Your task to perform on an android device: Go to Google maps Image 0: 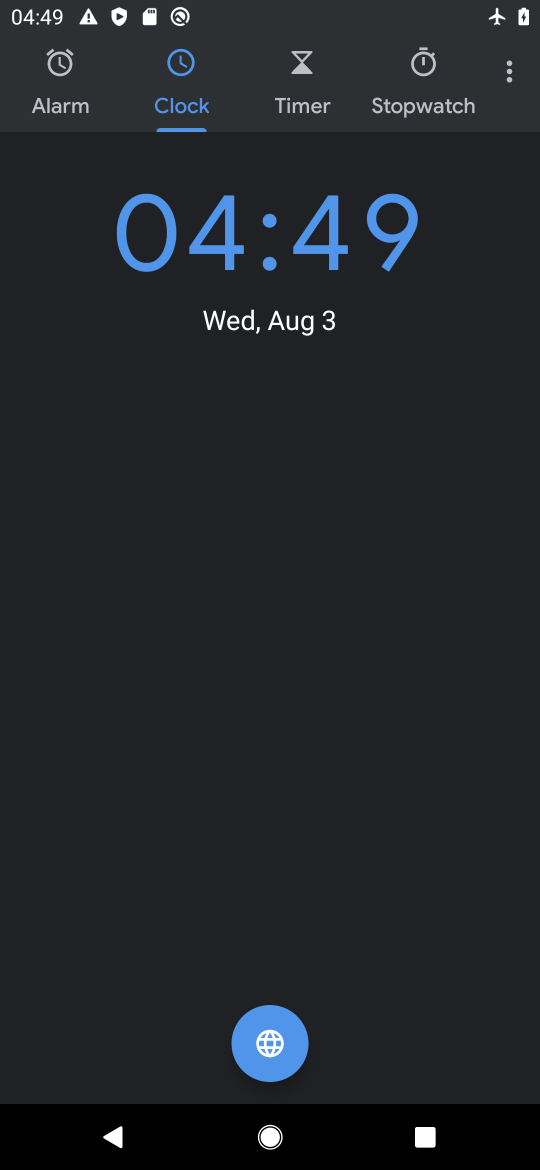
Step 0: press home button
Your task to perform on an android device: Go to Google maps Image 1: 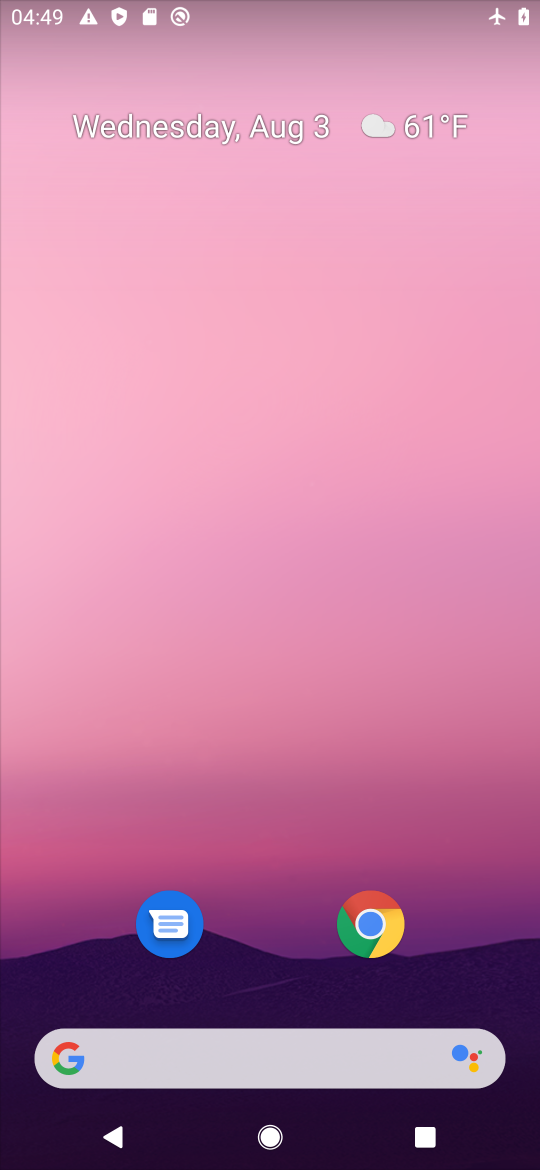
Step 1: drag from (269, 601) to (269, 330)
Your task to perform on an android device: Go to Google maps Image 2: 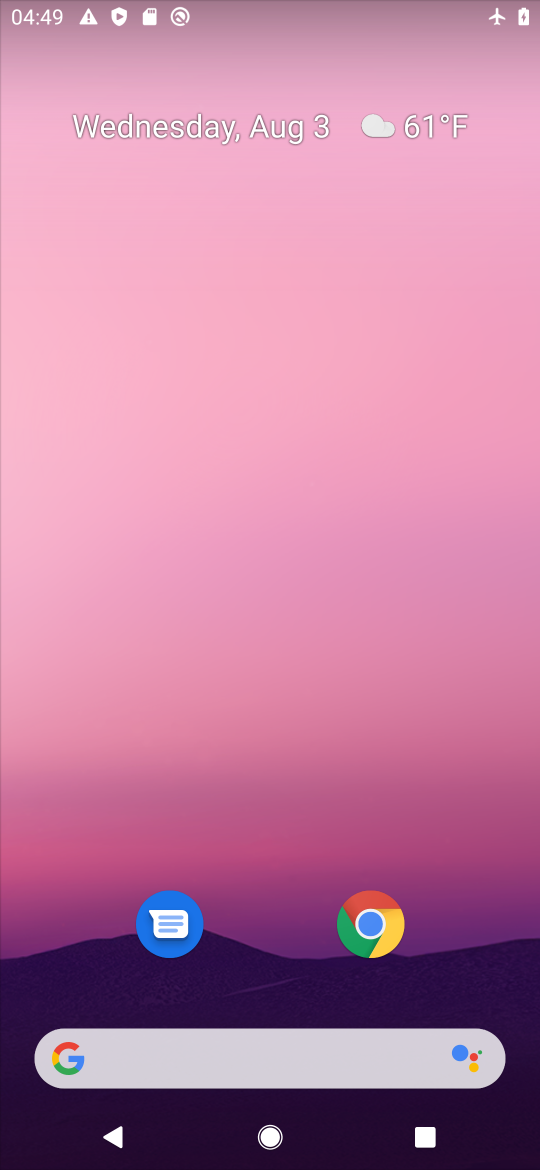
Step 2: drag from (276, 750) to (276, 246)
Your task to perform on an android device: Go to Google maps Image 3: 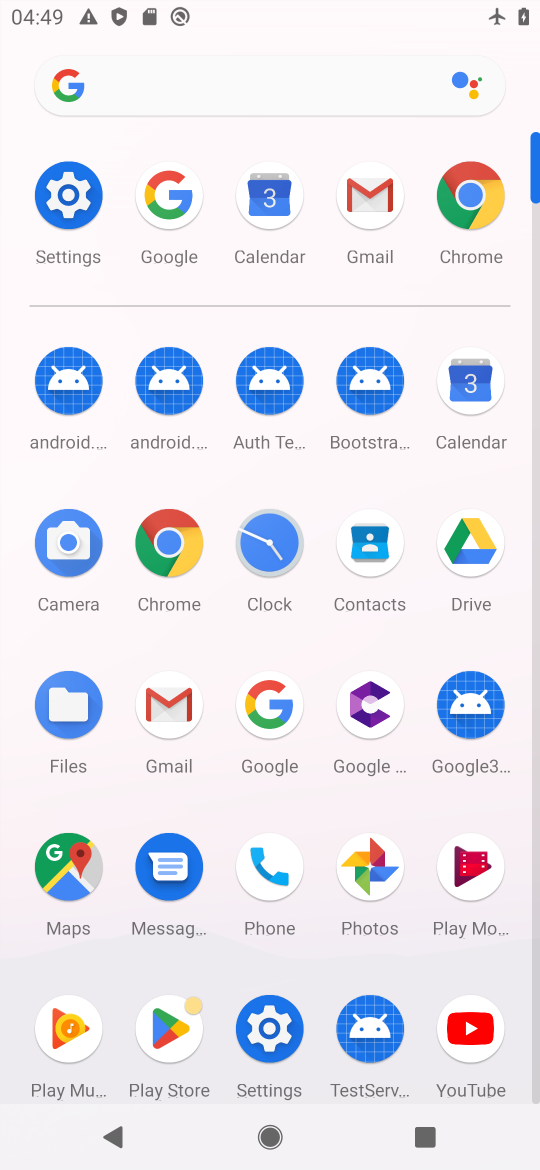
Step 3: click (89, 859)
Your task to perform on an android device: Go to Google maps Image 4: 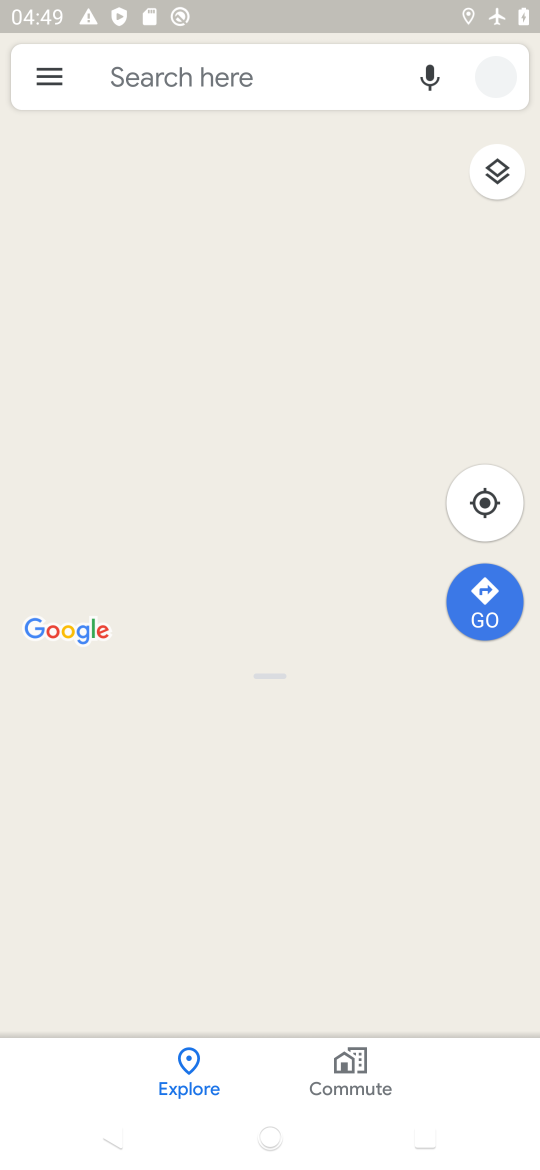
Step 4: task complete